Your task to perform on an android device: change alarm snooze length Image 0: 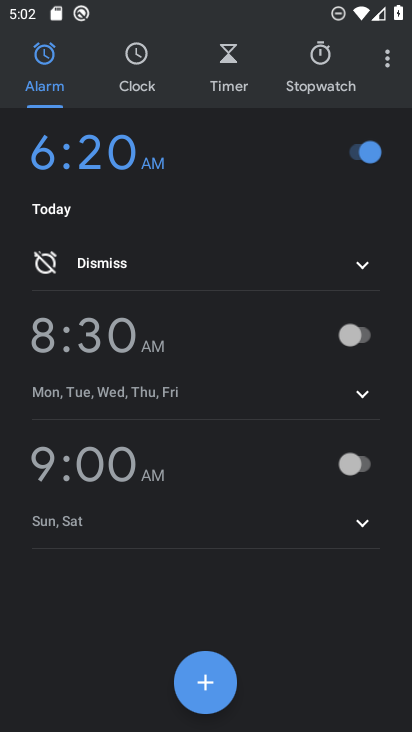
Step 0: drag from (384, 56) to (312, 99)
Your task to perform on an android device: change alarm snooze length Image 1: 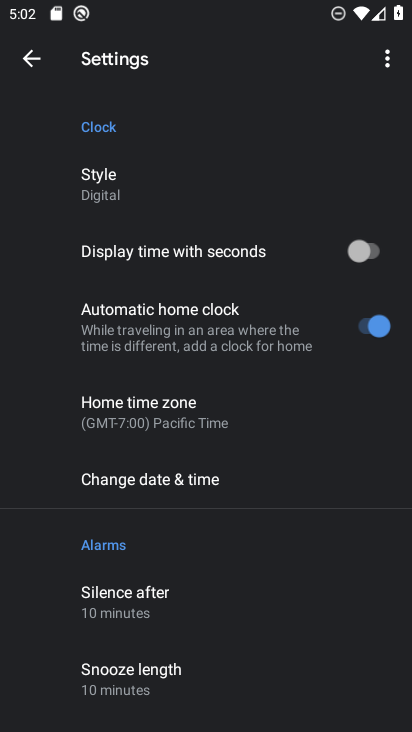
Step 1: drag from (241, 576) to (243, 194)
Your task to perform on an android device: change alarm snooze length Image 2: 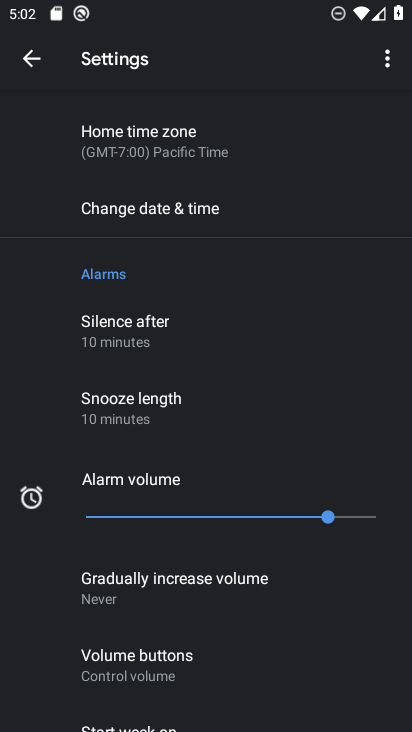
Step 2: click (155, 400)
Your task to perform on an android device: change alarm snooze length Image 3: 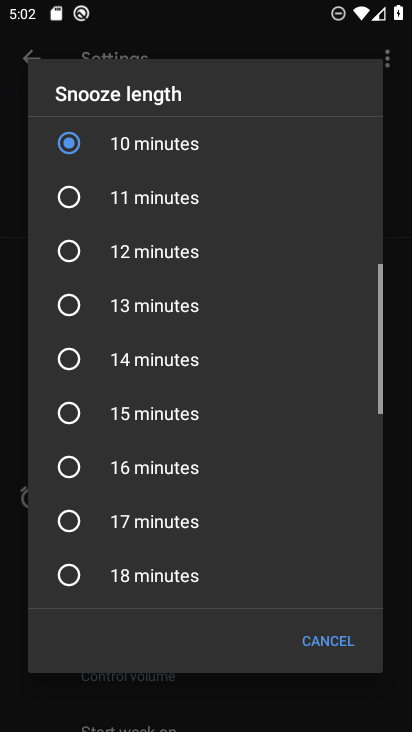
Step 3: click (159, 255)
Your task to perform on an android device: change alarm snooze length Image 4: 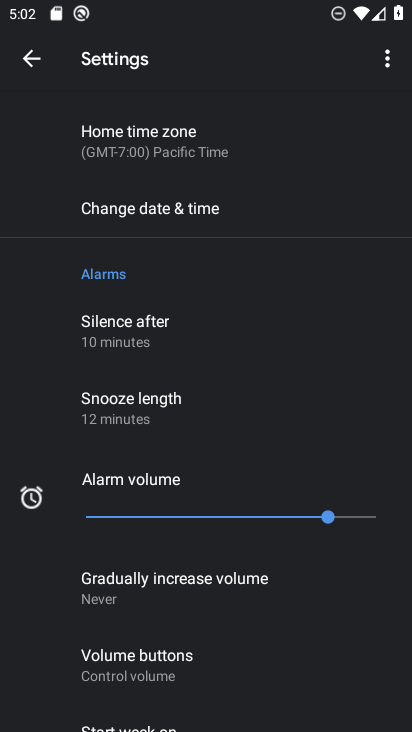
Step 4: task complete